Your task to perform on an android device: Do I have any events tomorrow? Image 0: 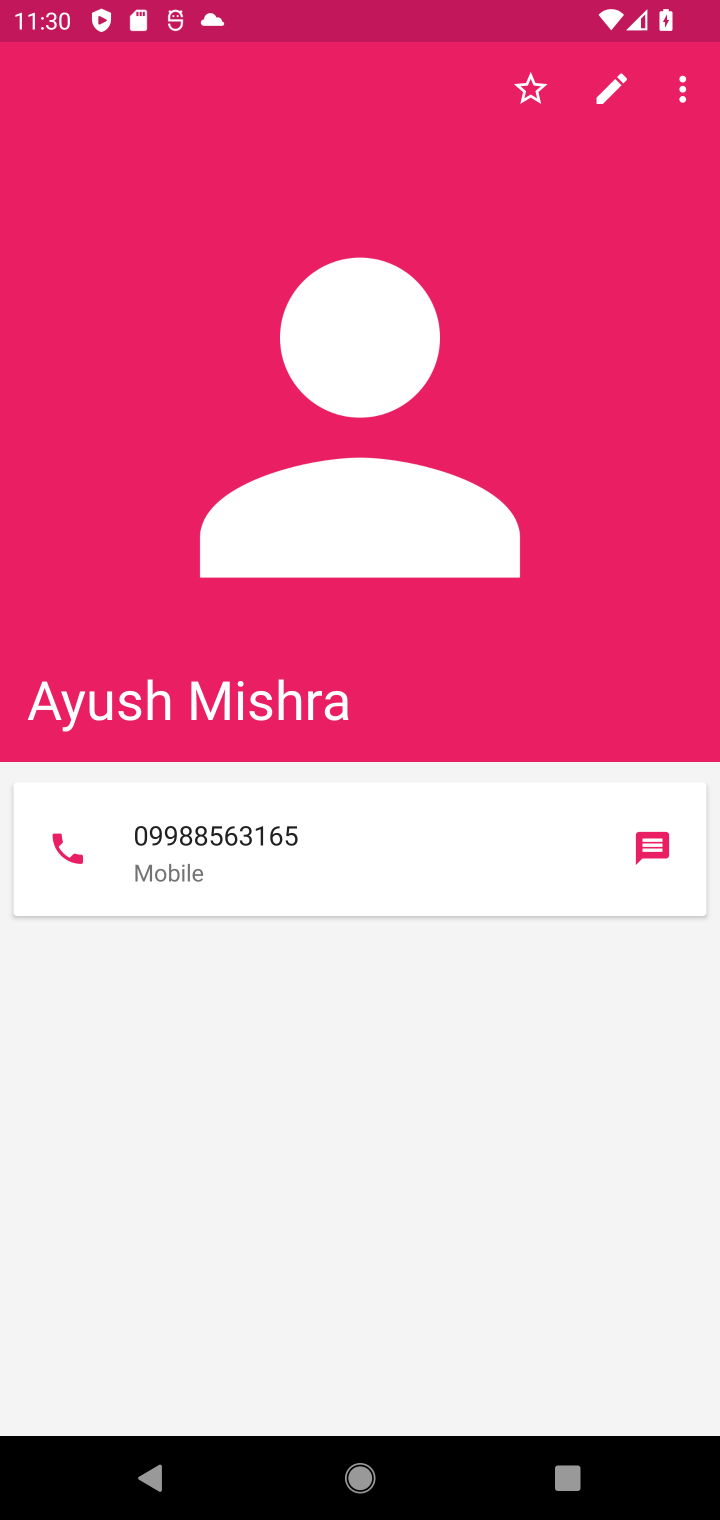
Step 0: press home button
Your task to perform on an android device: Do I have any events tomorrow? Image 1: 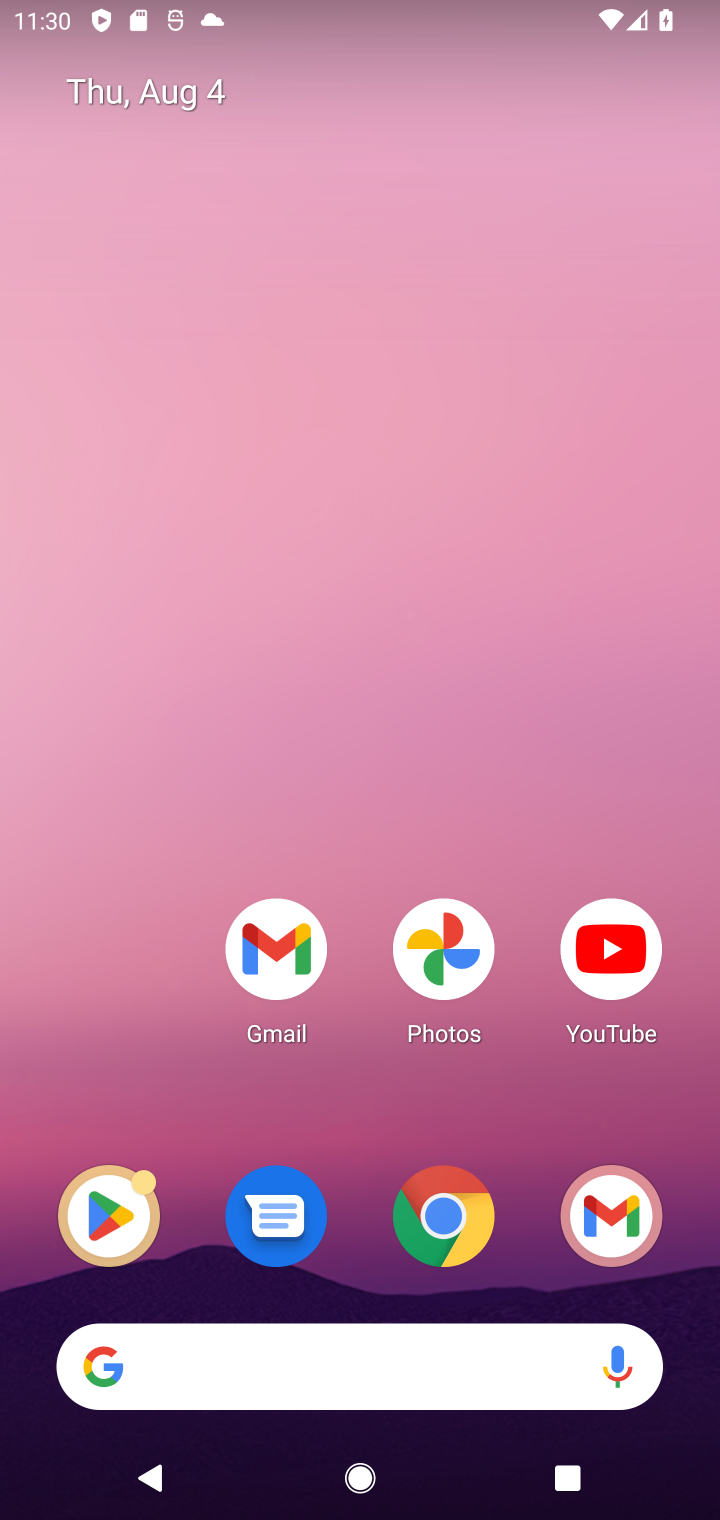
Step 1: drag from (300, 1369) to (389, 325)
Your task to perform on an android device: Do I have any events tomorrow? Image 2: 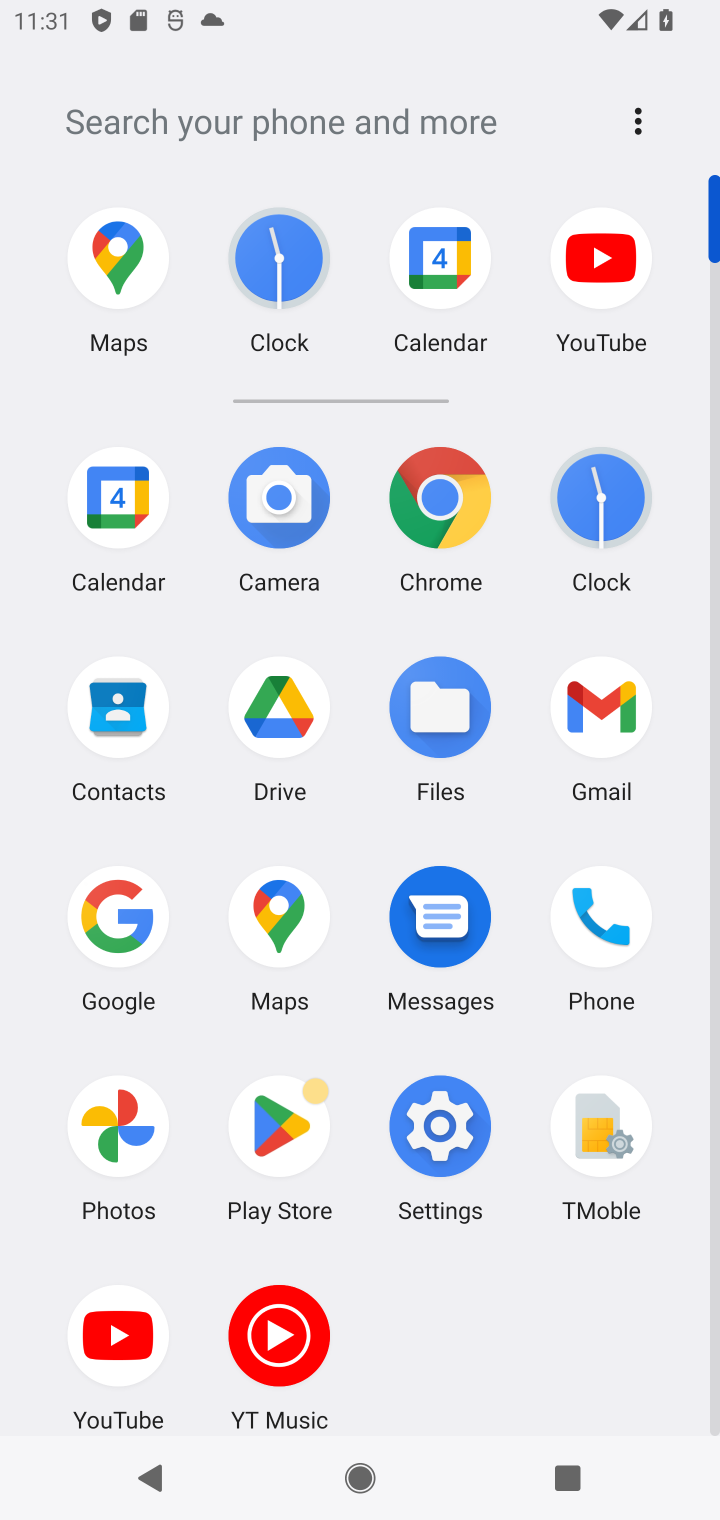
Step 2: click (118, 496)
Your task to perform on an android device: Do I have any events tomorrow? Image 3: 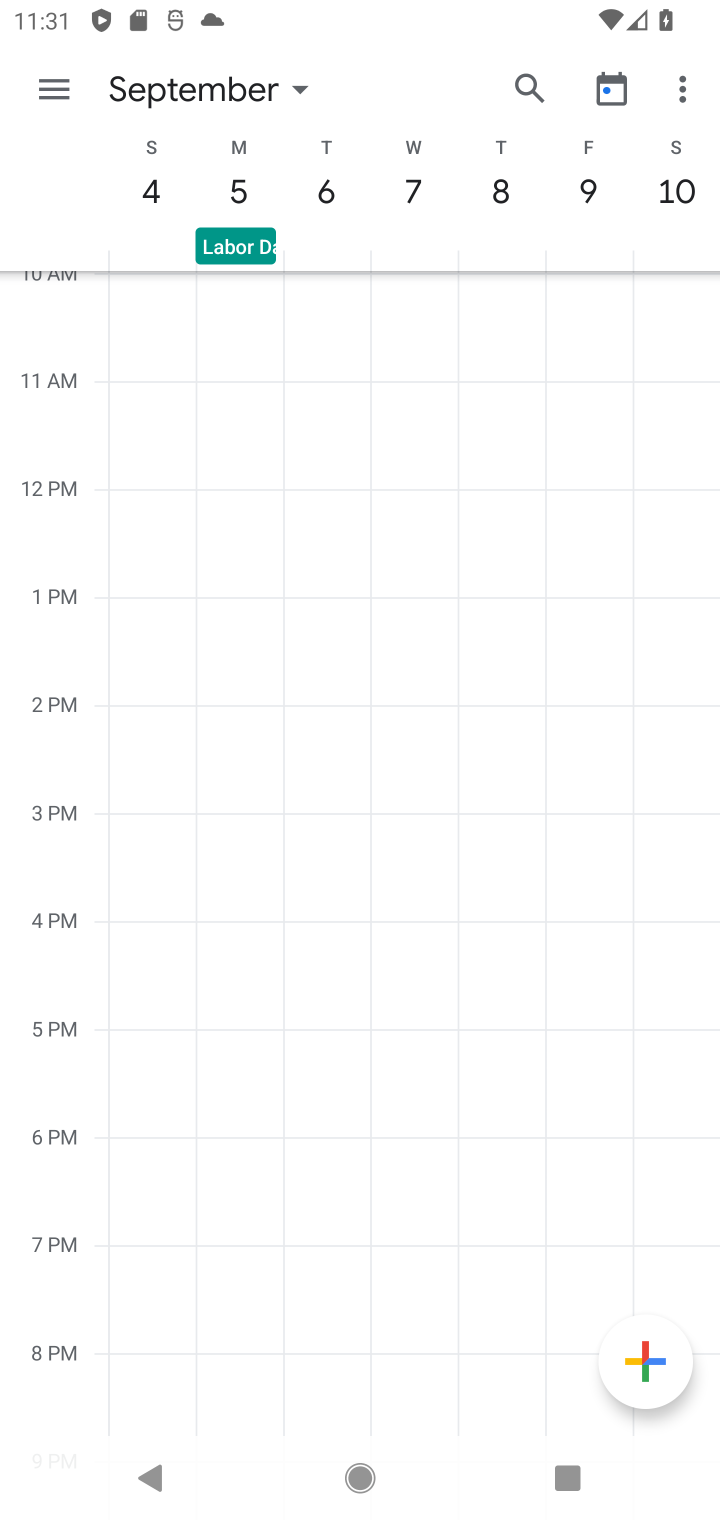
Step 3: click (611, 89)
Your task to perform on an android device: Do I have any events tomorrow? Image 4: 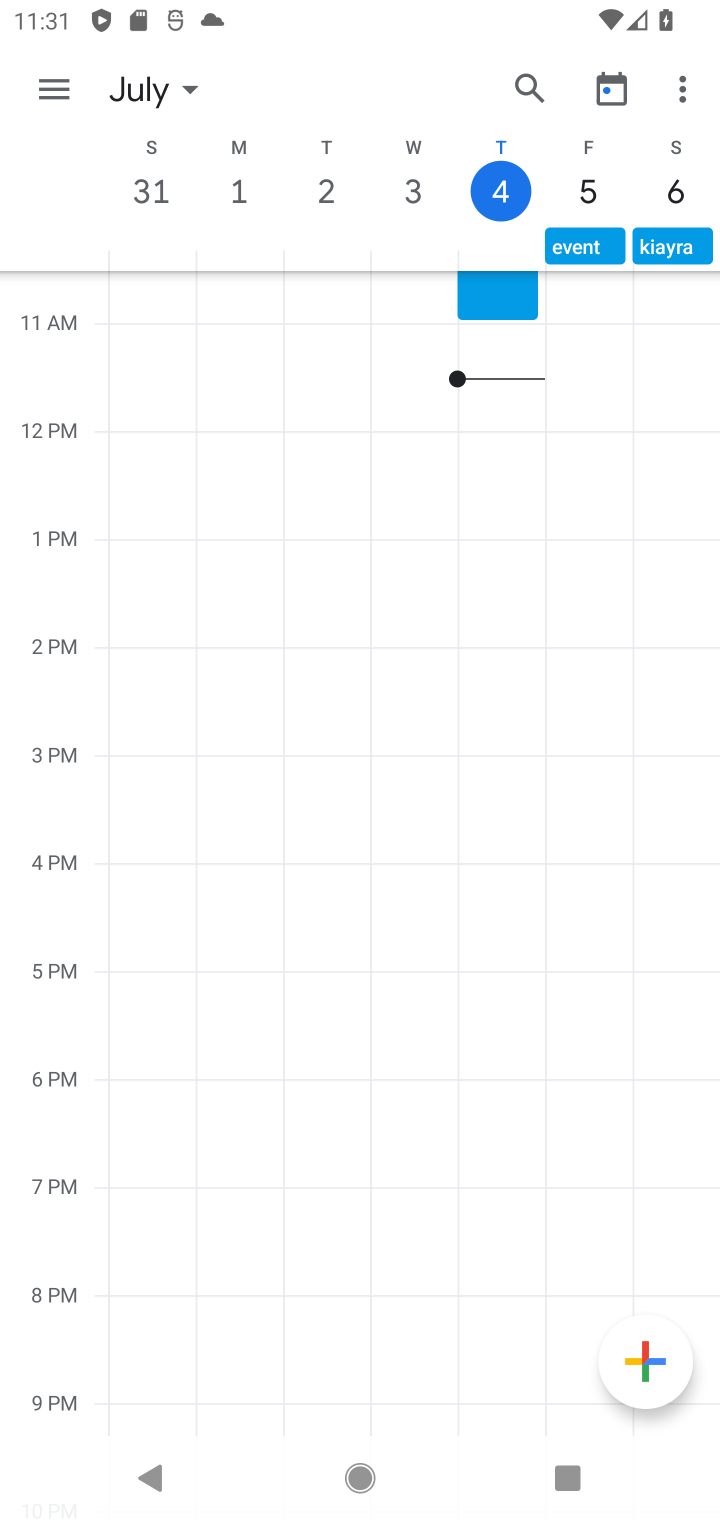
Step 4: click (191, 89)
Your task to perform on an android device: Do I have any events tomorrow? Image 5: 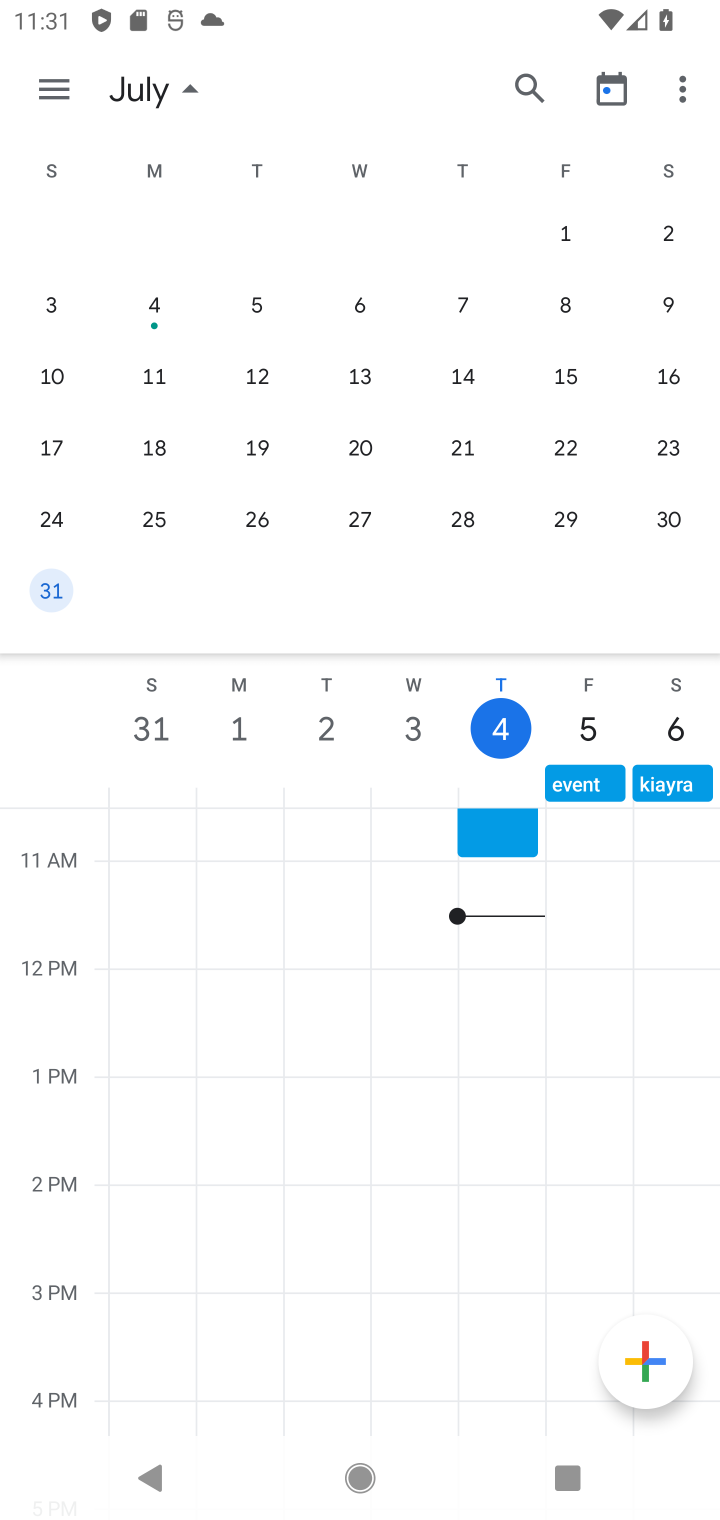
Step 5: click (596, 712)
Your task to perform on an android device: Do I have any events tomorrow? Image 6: 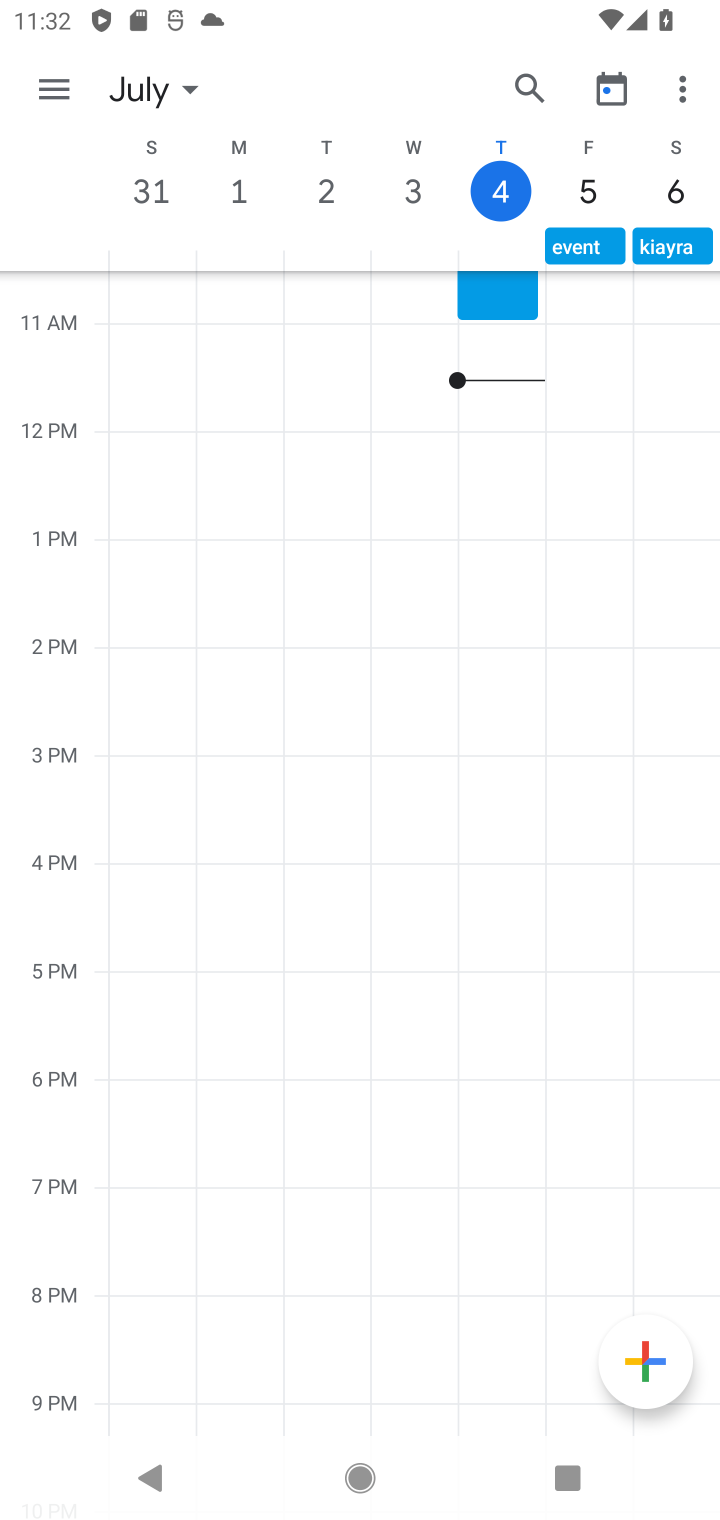
Step 6: click (598, 188)
Your task to perform on an android device: Do I have any events tomorrow? Image 7: 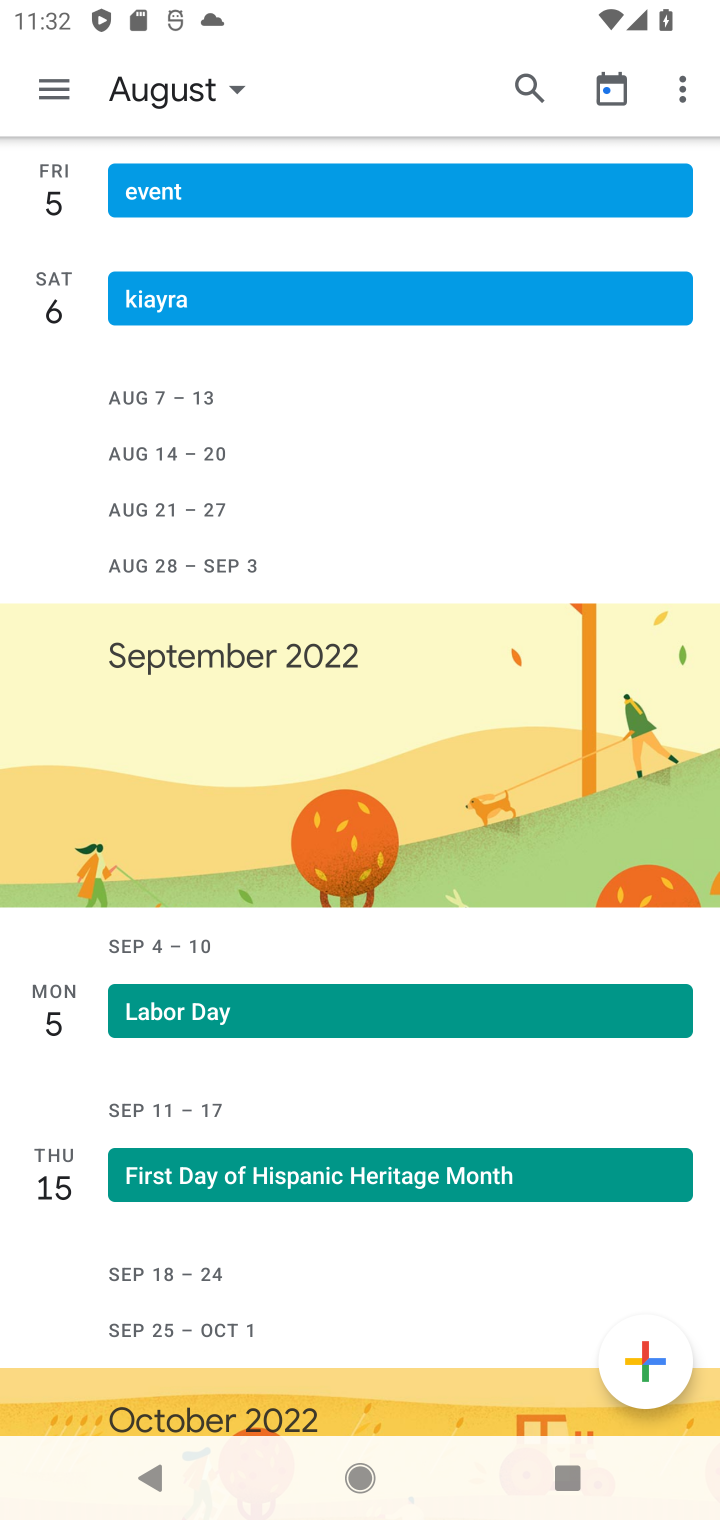
Step 7: task complete